Your task to perform on an android device: Set the phone to "Do not disturb". Image 0: 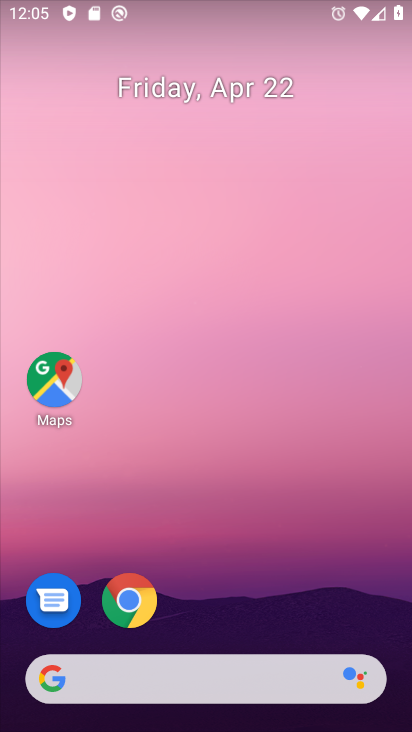
Step 0: drag from (230, 611) to (290, 49)
Your task to perform on an android device: Set the phone to "Do not disturb". Image 1: 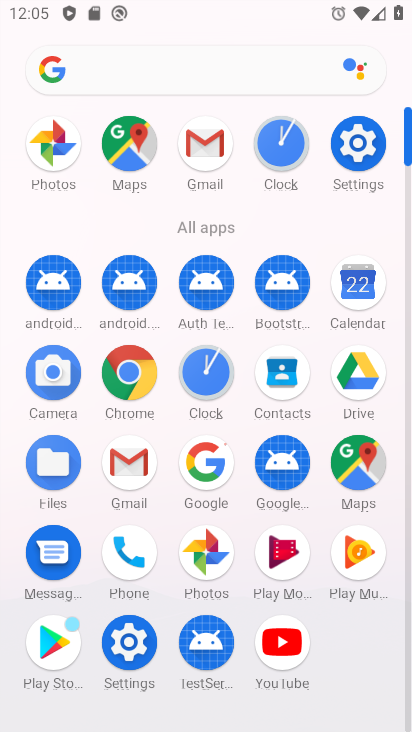
Step 1: click (358, 143)
Your task to perform on an android device: Set the phone to "Do not disturb". Image 2: 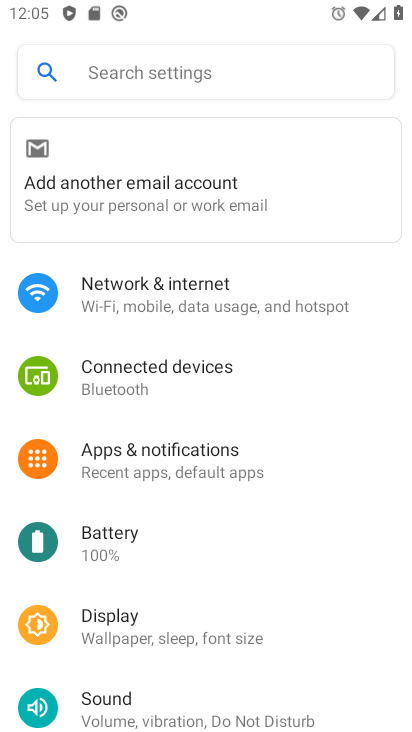
Step 2: drag from (194, 555) to (259, 343)
Your task to perform on an android device: Set the phone to "Do not disturb". Image 3: 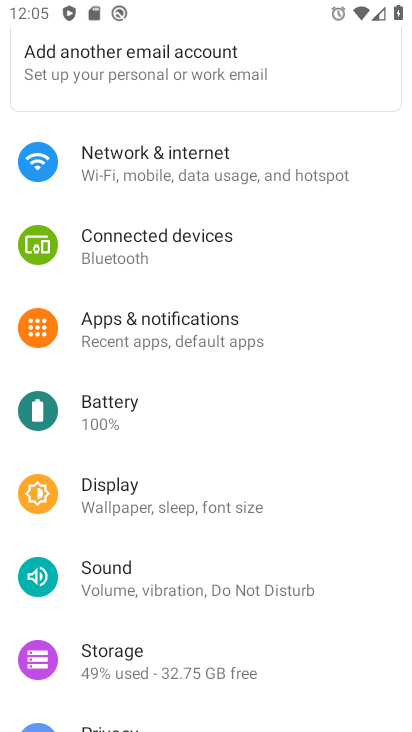
Step 3: click (220, 588)
Your task to perform on an android device: Set the phone to "Do not disturb". Image 4: 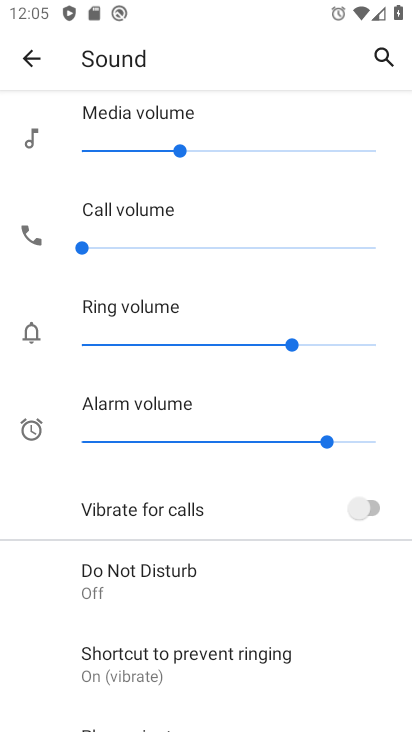
Step 4: click (172, 574)
Your task to perform on an android device: Set the phone to "Do not disturb". Image 5: 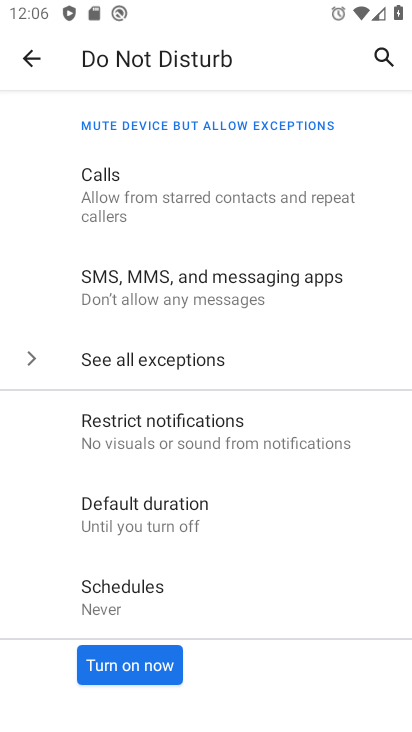
Step 5: click (117, 664)
Your task to perform on an android device: Set the phone to "Do not disturb". Image 6: 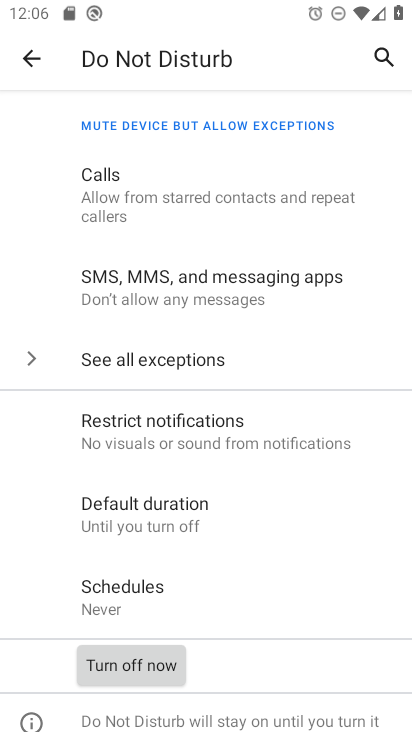
Step 6: task complete